Your task to perform on an android device: Turn off the flashlight Image 0: 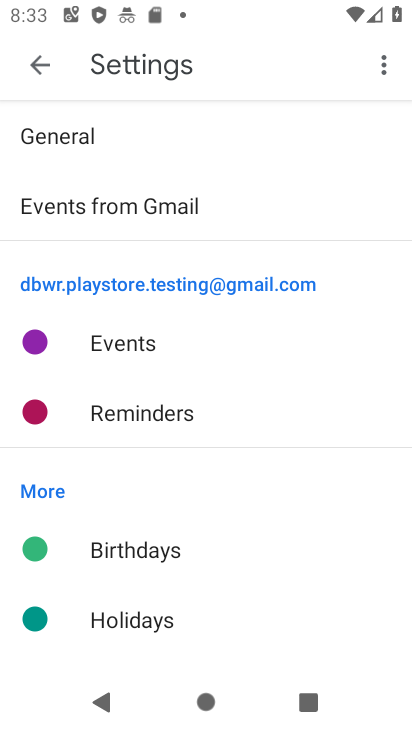
Step 0: press home button
Your task to perform on an android device: Turn off the flashlight Image 1: 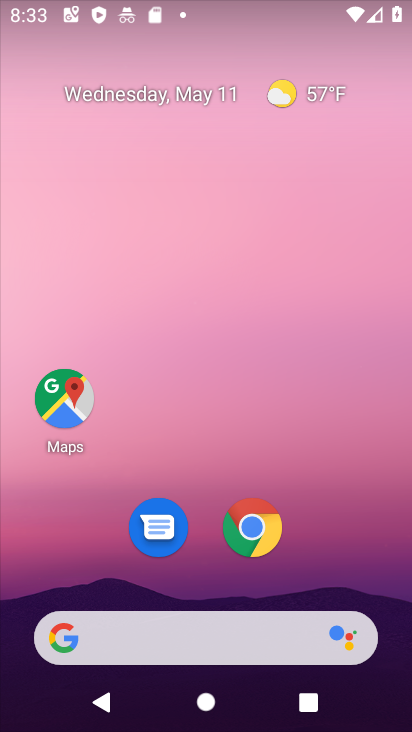
Step 1: task complete